Your task to perform on an android device: Do I have any events this weekend? Image 0: 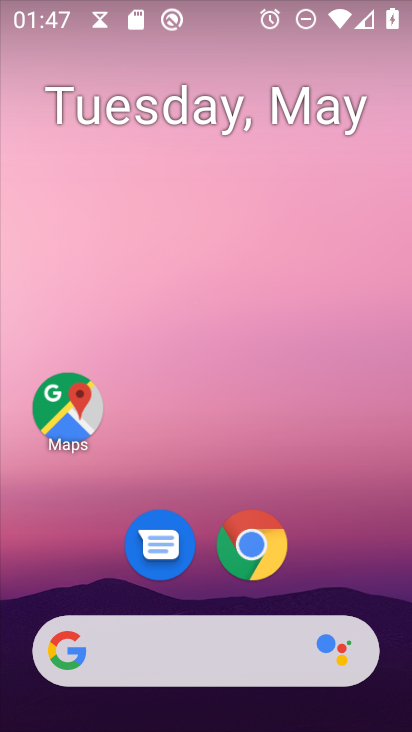
Step 0: drag from (313, 576) to (317, 125)
Your task to perform on an android device: Do I have any events this weekend? Image 1: 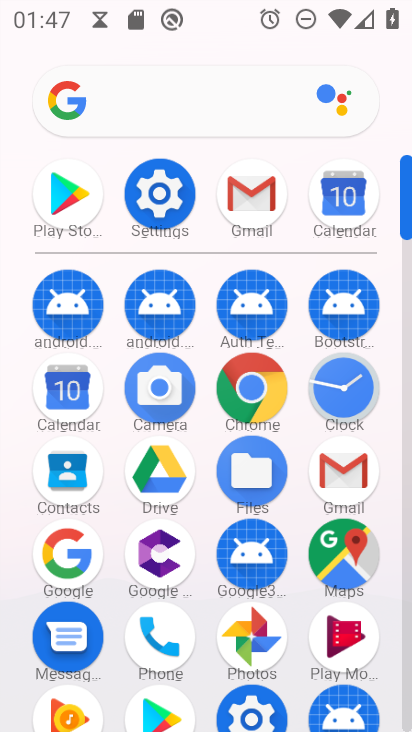
Step 1: click (56, 386)
Your task to perform on an android device: Do I have any events this weekend? Image 2: 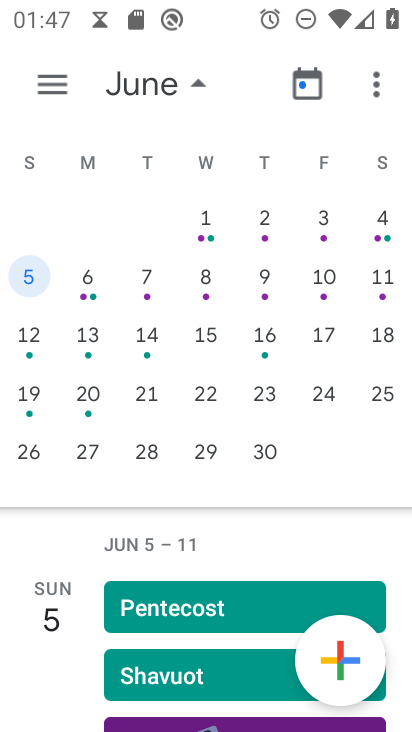
Step 2: drag from (41, 328) to (378, 362)
Your task to perform on an android device: Do I have any events this weekend? Image 3: 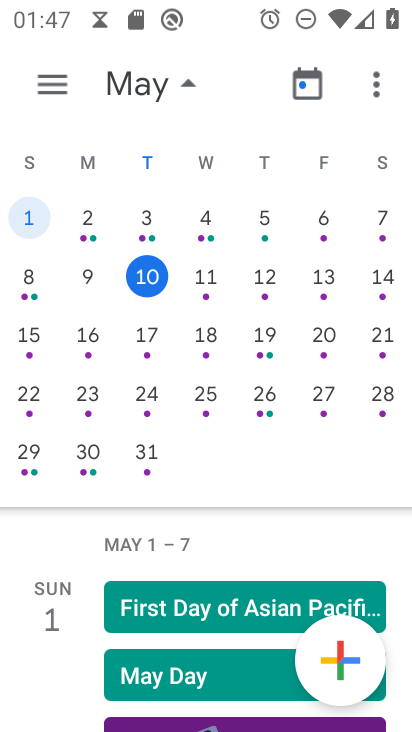
Step 3: click (368, 274)
Your task to perform on an android device: Do I have any events this weekend? Image 4: 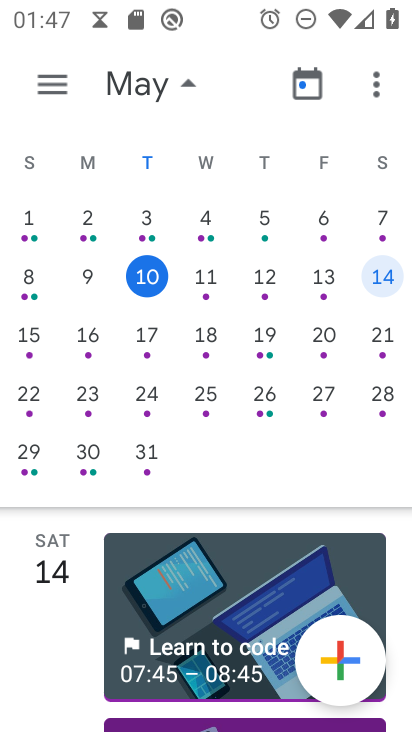
Step 4: task complete